Your task to perform on an android device: Go to ESPN.com Image 0: 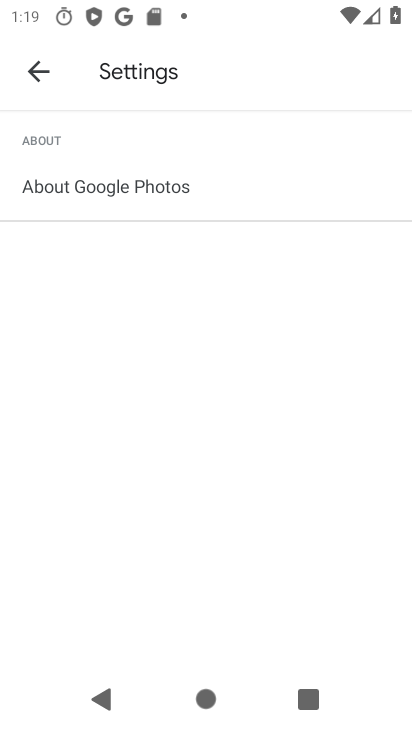
Step 0: press home button
Your task to perform on an android device: Go to ESPN.com Image 1: 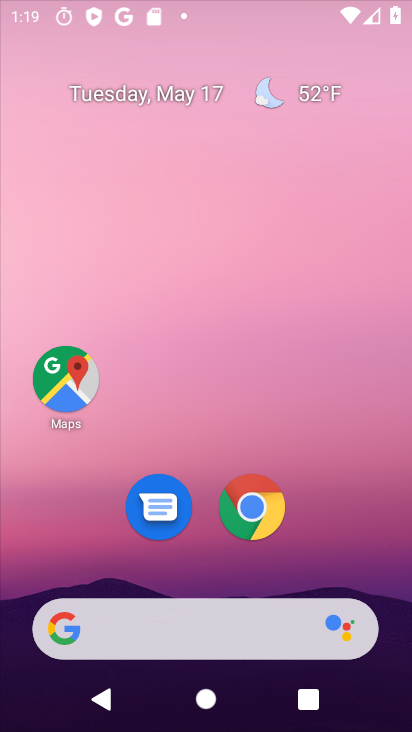
Step 1: drag from (215, 549) to (260, 48)
Your task to perform on an android device: Go to ESPN.com Image 2: 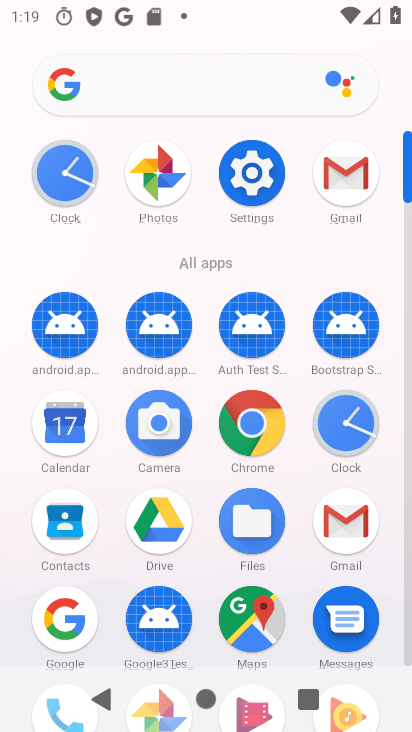
Step 2: drag from (201, 501) to (190, 374)
Your task to perform on an android device: Go to ESPN.com Image 3: 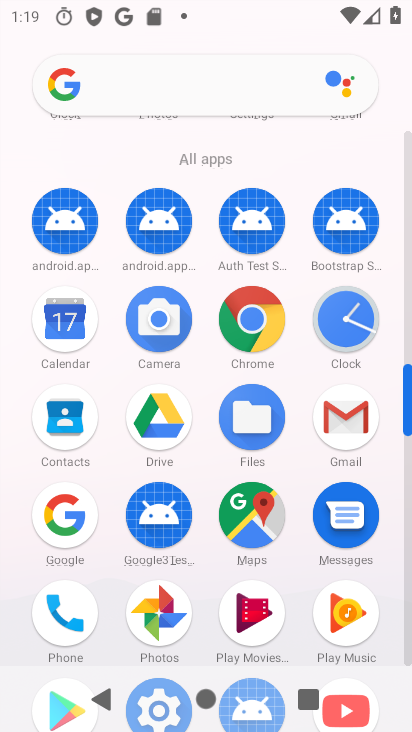
Step 3: click (73, 508)
Your task to perform on an android device: Go to ESPN.com Image 4: 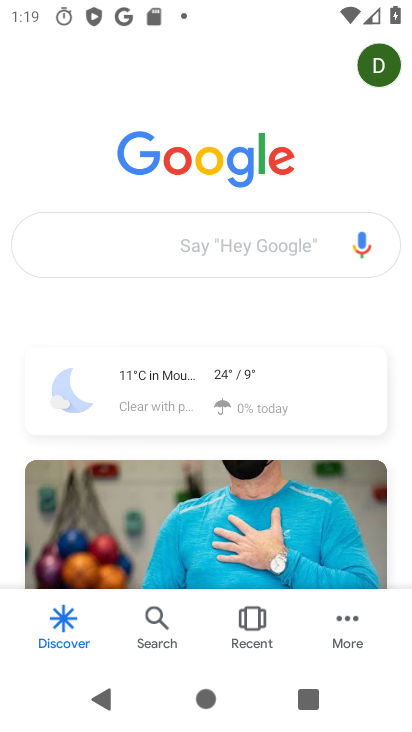
Step 4: click (189, 248)
Your task to perform on an android device: Go to ESPN.com Image 5: 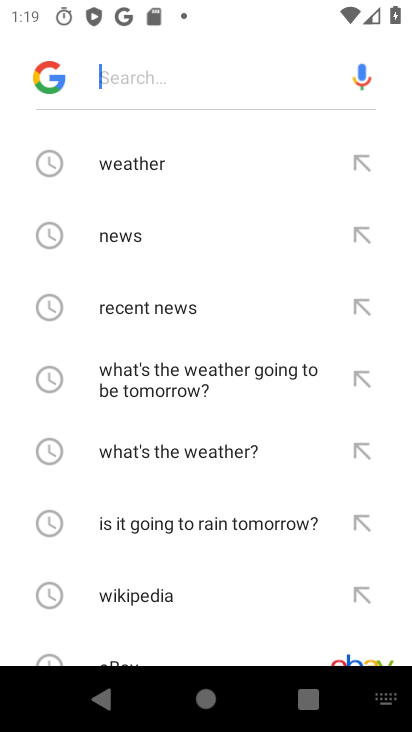
Step 5: type "espn.com"
Your task to perform on an android device: Go to ESPN.com Image 6: 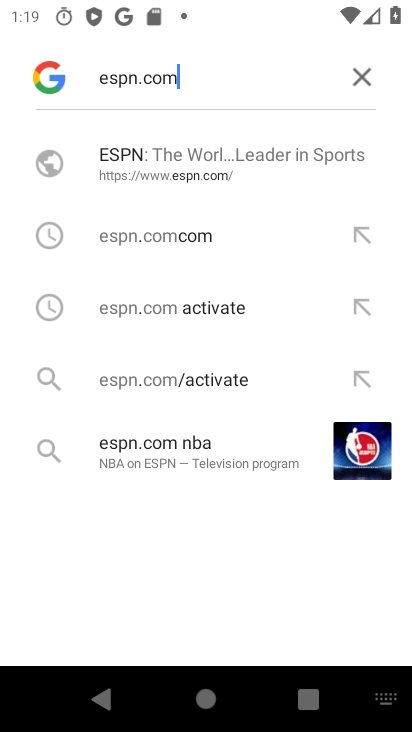
Step 6: click (190, 172)
Your task to perform on an android device: Go to ESPN.com Image 7: 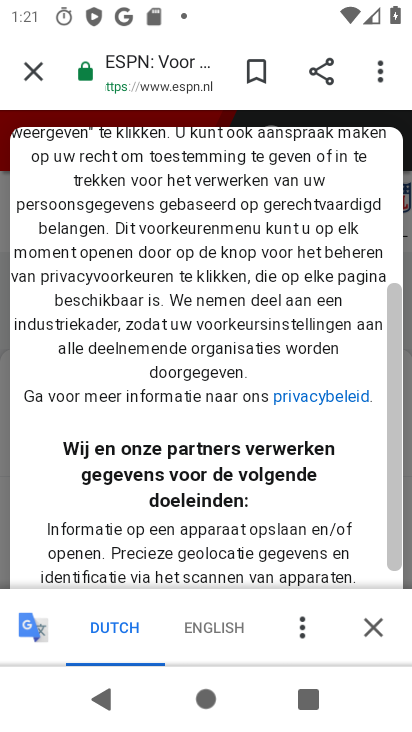
Step 7: task complete